Your task to perform on an android device: open app "Mercado Libre" (install if not already installed) Image 0: 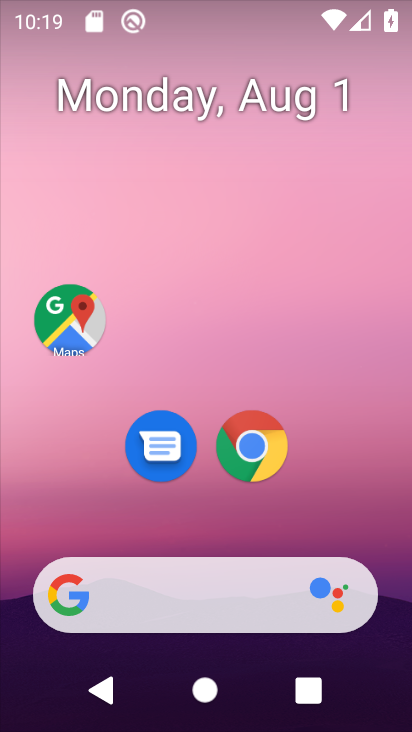
Step 0: drag from (200, 492) to (222, 94)
Your task to perform on an android device: open app "Mercado Libre" (install if not already installed) Image 1: 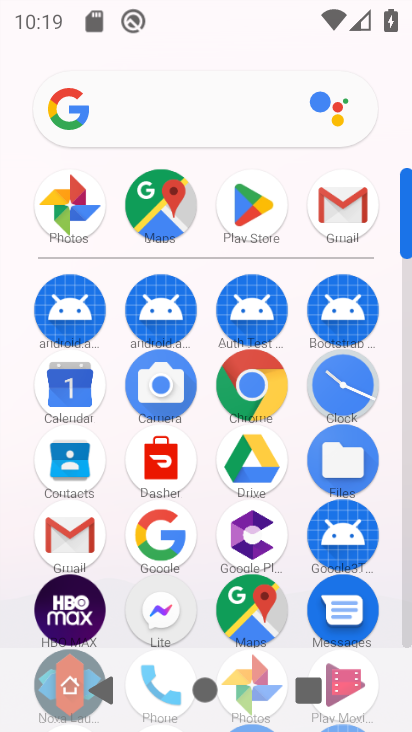
Step 1: click (258, 200)
Your task to perform on an android device: open app "Mercado Libre" (install if not already installed) Image 2: 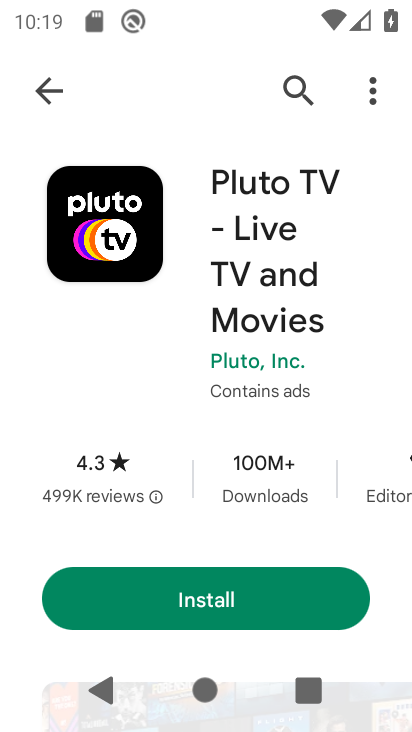
Step 2: click (293, 97)
Your task to perform on an android device: open app "Mercado Libre" (install if not already installed) Image 3: 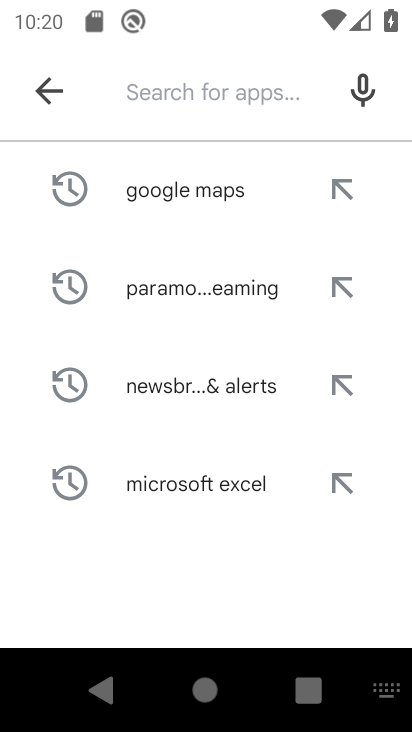
Step 3: type "Mercado Libre"
Your task to perform on an android device: open app "Mercado Libre" (install if not already installed) Image 4: 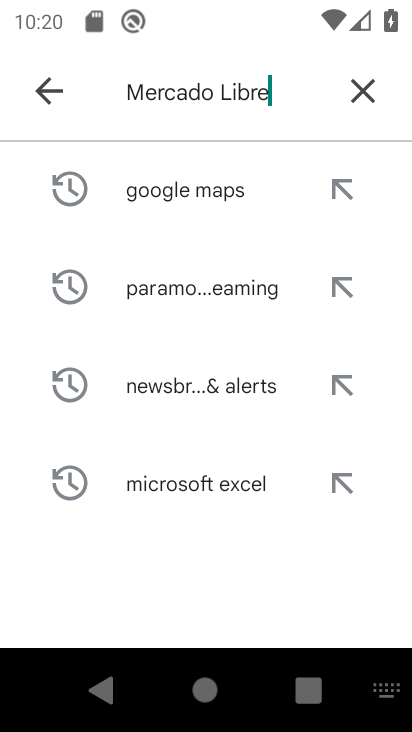
Step 4: type ""
Your task to perform on an android device: open app "Mercado Libre" (install if not already installed) Image 5: 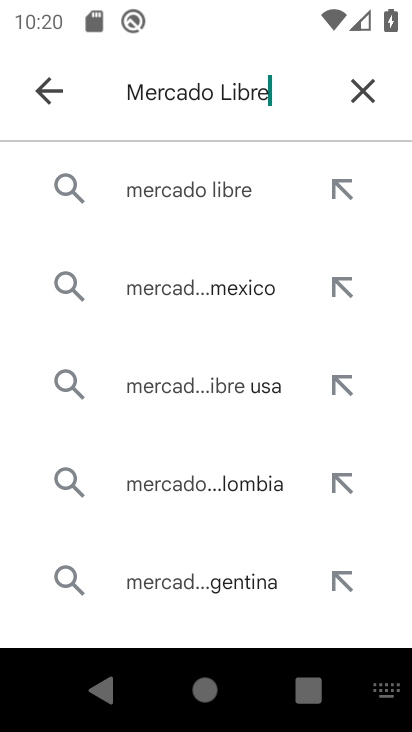
Step 5: click (259, 188)
Your task to perform on an android device: open app "Mercado Libre" (install if not already installed) Image 6: 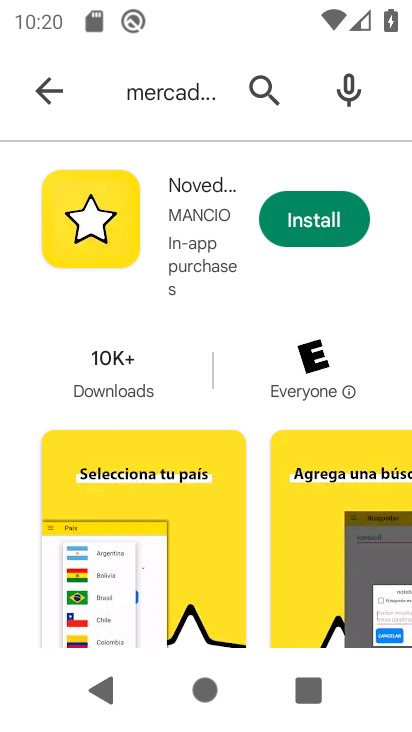
Step 6: task complete